Your task to perform on an android device: Go to network settings Image 0: 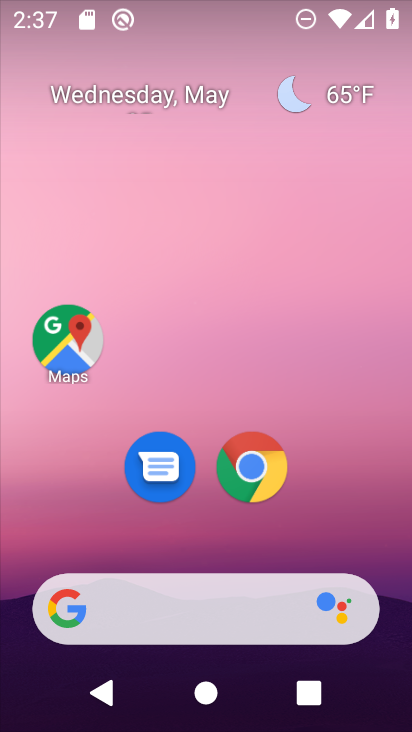
Step 0: drag from (189, 528) to (161, 224)
Your task to perform on an android device: Go to network settings Image 1: 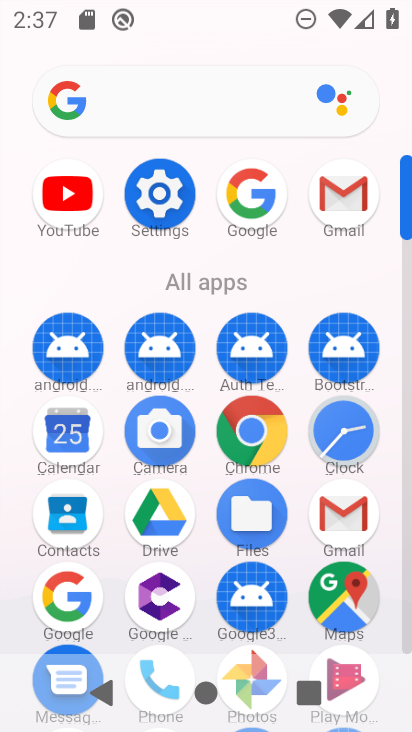
Step 1: click (169, 184)
Your task to perform on an android device: Go to network settings Image 2: 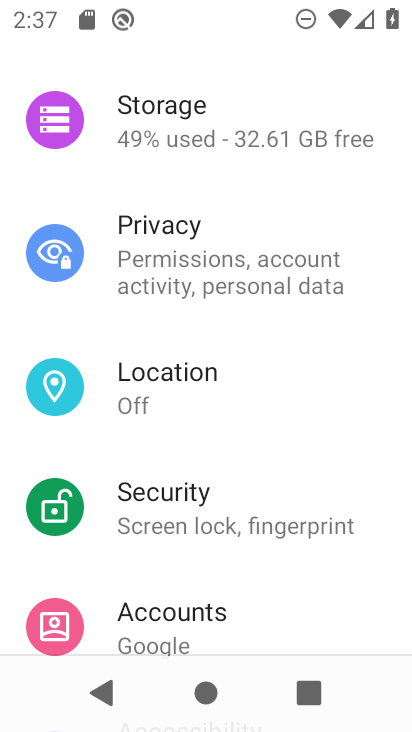
Step 2: drag from (199, 122) to (227, 501)
Your task to perform on an android device: Go to network settings Image 3: 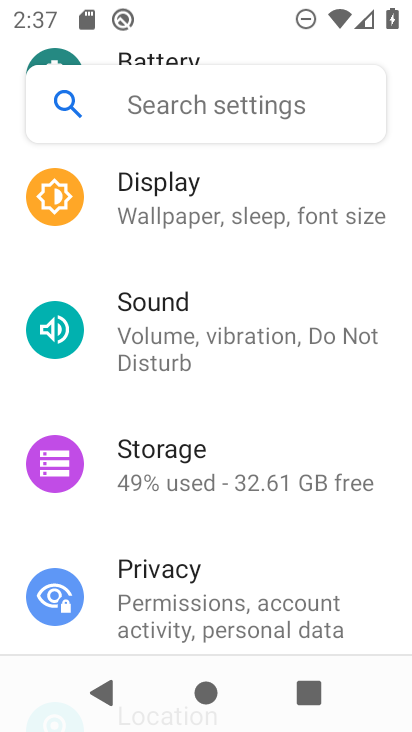
Step 3: drag from (263, 196) to (257, 543)
Your task to perform on an android device: Go to network settings Image 4: 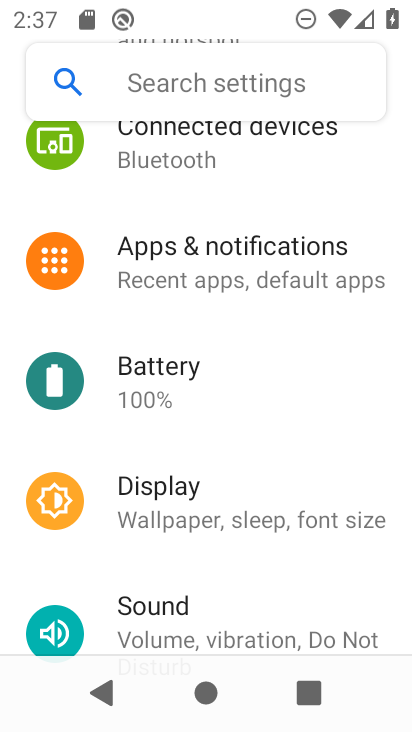
Step 4: drag from (282, 217) to (305, 526)
Your task to perform on an android device: Go to network settings Image 5: 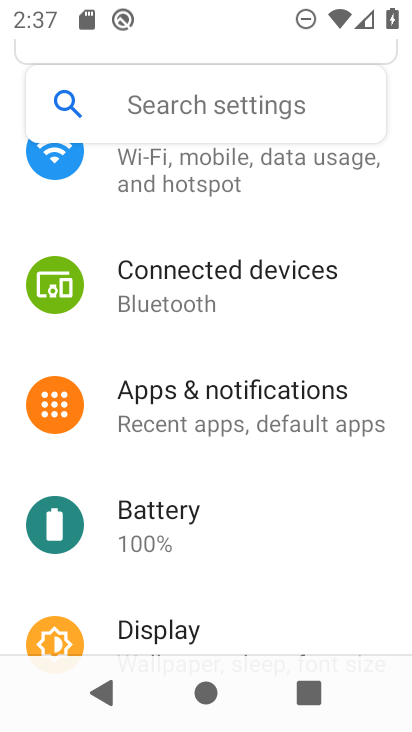
Step 5: click (205, 172)
Your task to perform on an android device: Go to network settings Image 6: 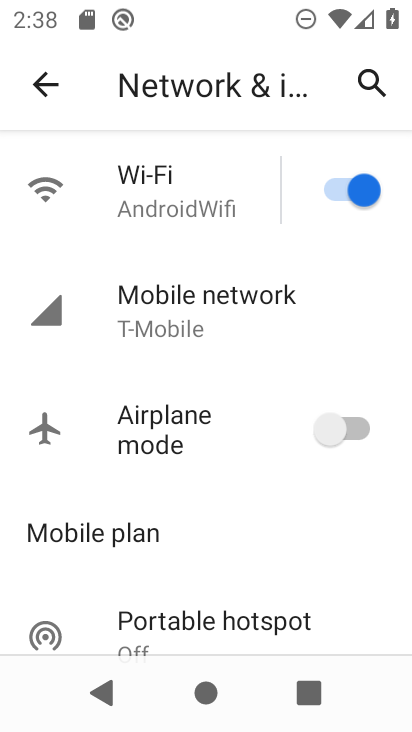
Step 6: task complete